Your task to perform on an android device: turn off location Image 0: 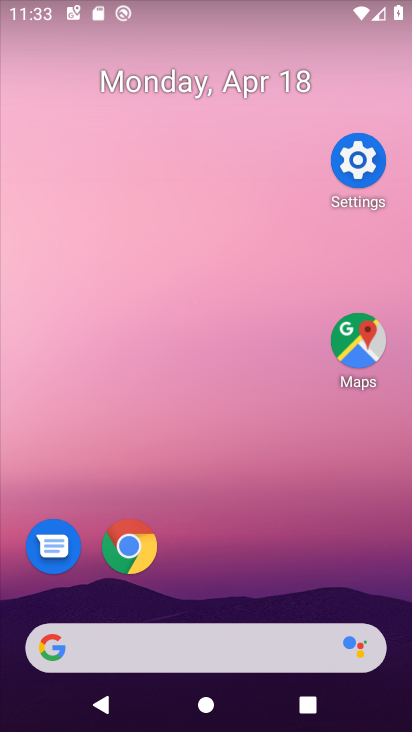
Step 0: drag from (255, 682) to (181, 120)
Your task to perform on an android device: turn off location Image 1: 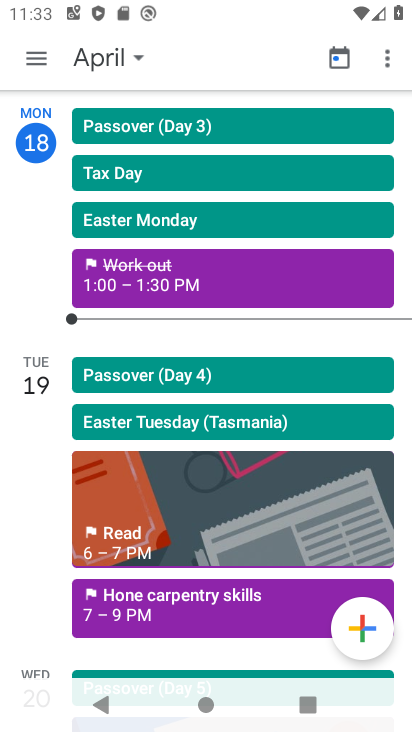
Step 1: press home button
Your task to perform on an android device: turn off location Image 2: 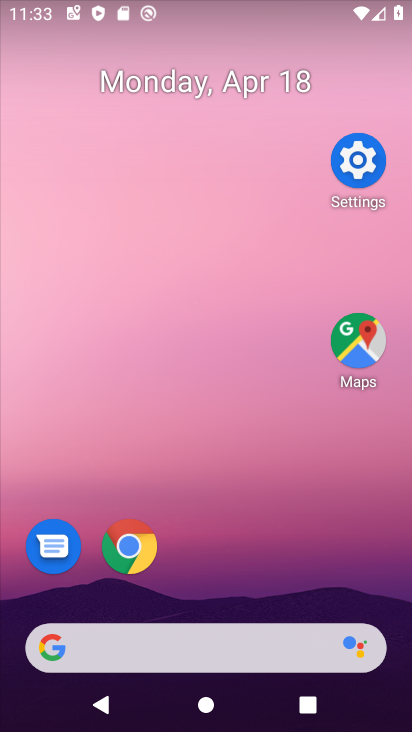
Step 2: drag from (248, 706) to (129, 63)
Your task to perform on an android device: turn off location Image 3: 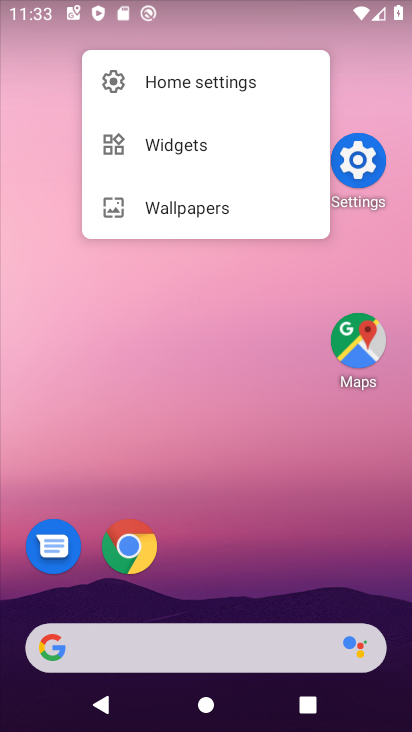
Step 3: drag from (239, 499) to (65, 286)
Your task to perform on an android device: turn off location Image 4: 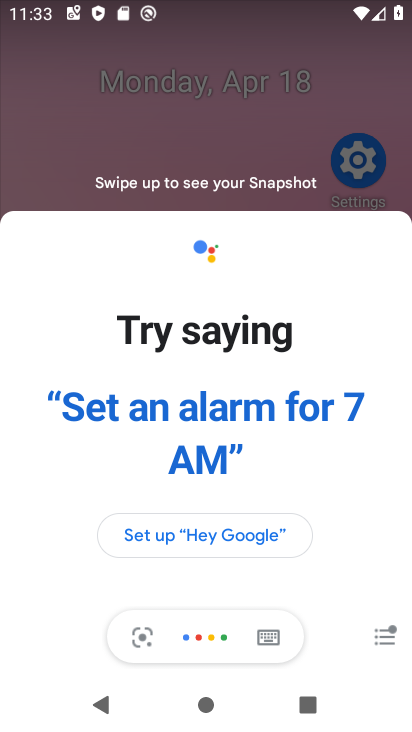
Step 4: press home button
Your task to perform on an android device: turn off location Image 5: 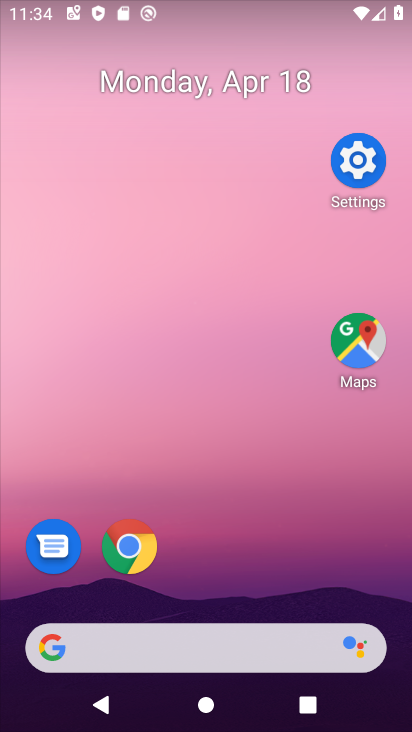
Step 5: drag from (270, 576) to (127, 239)
Your task to perform on an android device: turn off location Image 6: 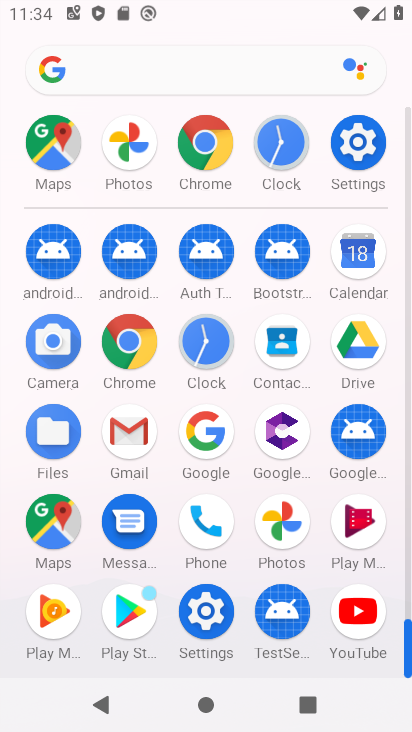
Step 6: click (356, 155)
Your task to perform on an android device: turn off location Image 7: 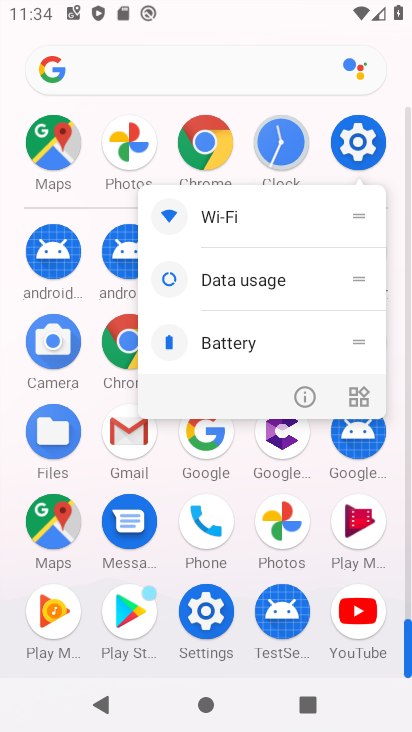
Step 7: click (356, 155)
Your task to perform on an android device: turn off location Image 8: 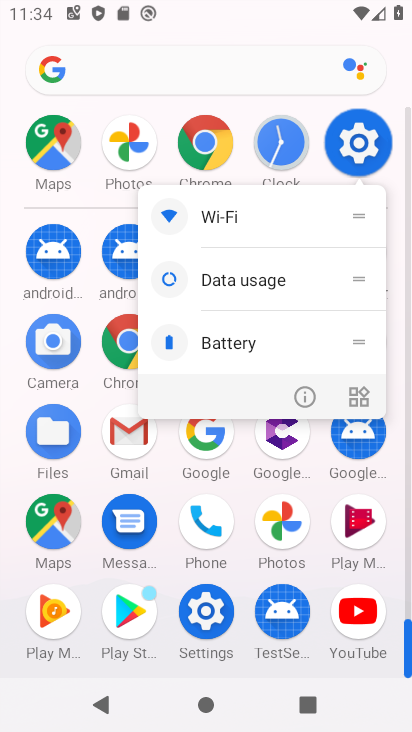
Step 8: click (357, 156)
Your task to perform on an android device: turn off location Image 9: 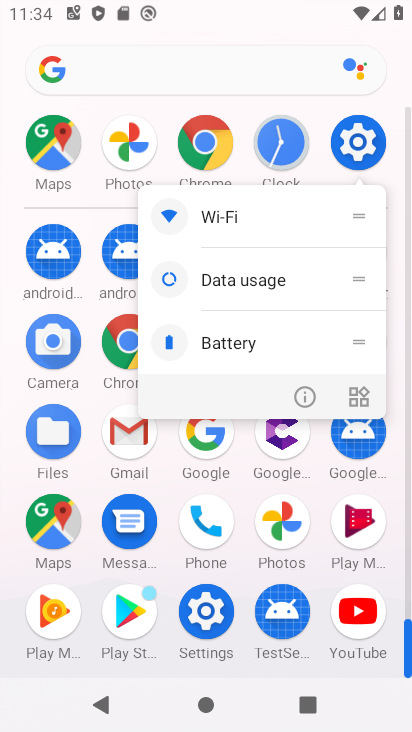
Step 9: click (348, 136)
Your task to perform on an android device: turn off location Image 10: 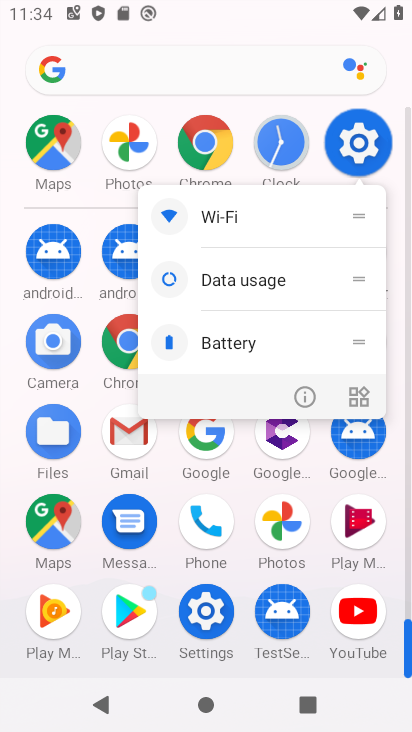
Step 10: click (349, 137)
Your task to perform on an android device: turn off location Image 11: 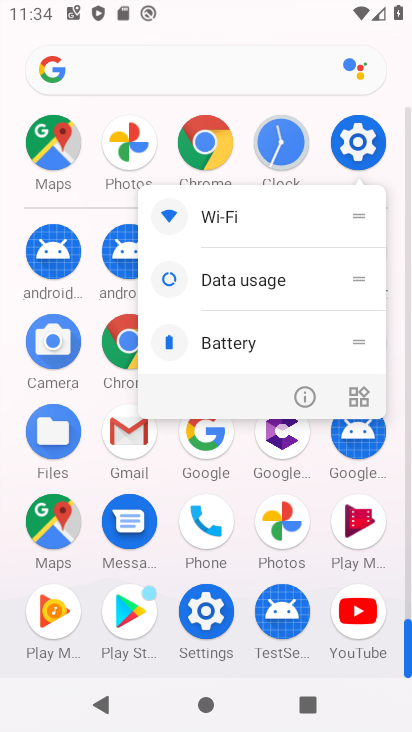
Step 11: click (349, 137)
Your task to perform on an android device: turn off location Image 12: 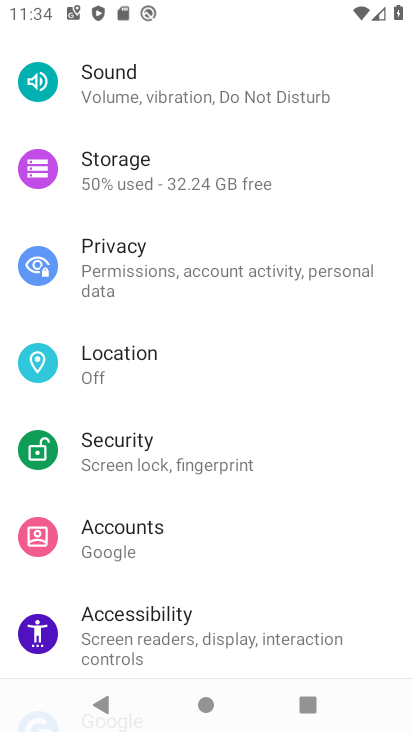
Step 12: click (109, 359)
Your task to perform on an android device: turn off location Image 13: 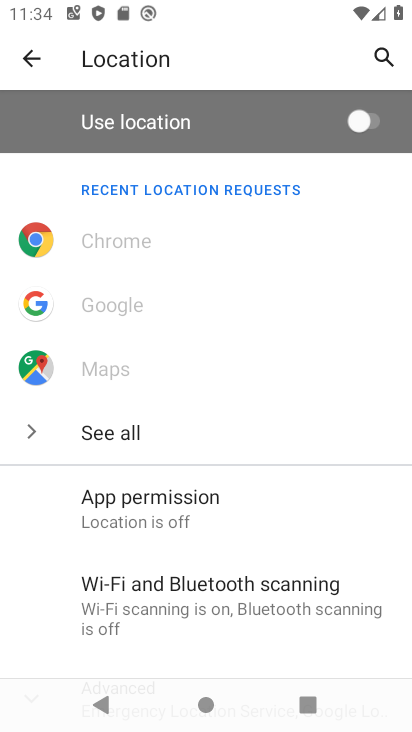
Step 13: press home button
Your task to perform on an android device: turn off location Image 14: 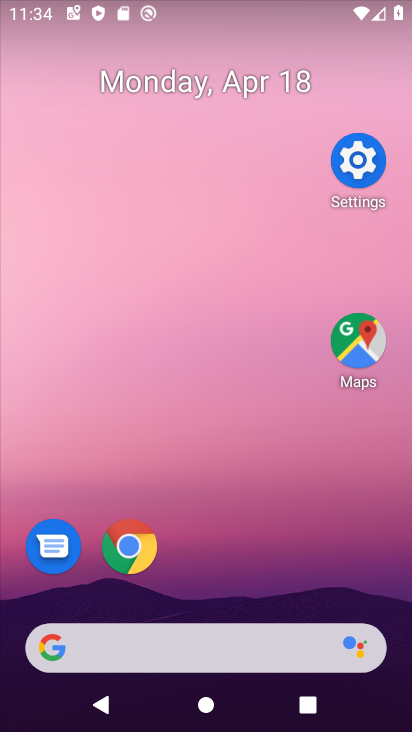
Step 14: drag from (336, 469) to (336, 563)
Your task to perform on an android device: turn off location Image 15: 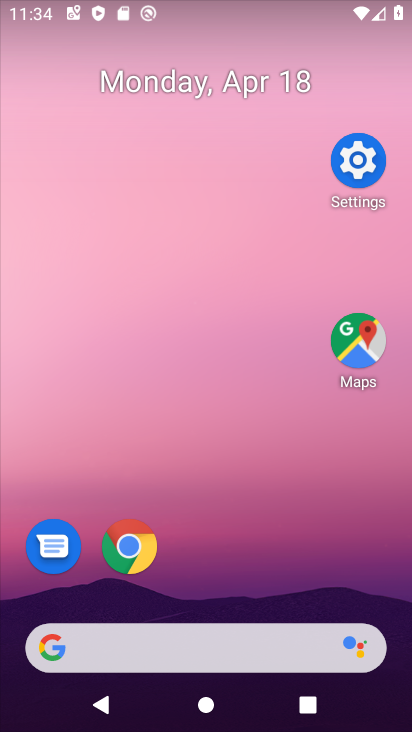
Step 15: drag from (251, 674) to (200, 203)
Your task to perform on an android device: turn off location Image 16: 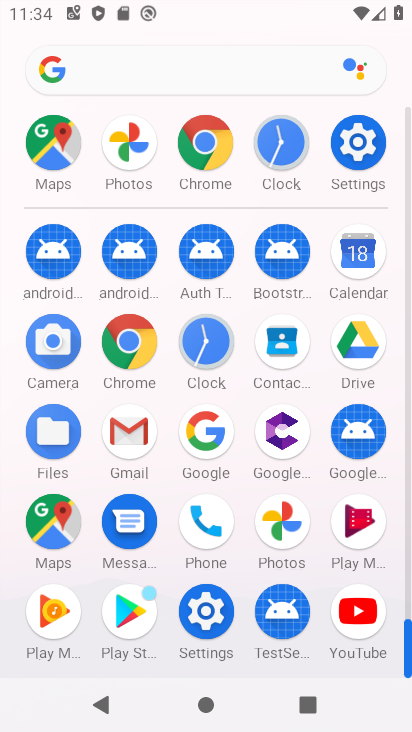
Step 16: click (348, 133)
Your task to perform on an android device: turn off location Image 17: 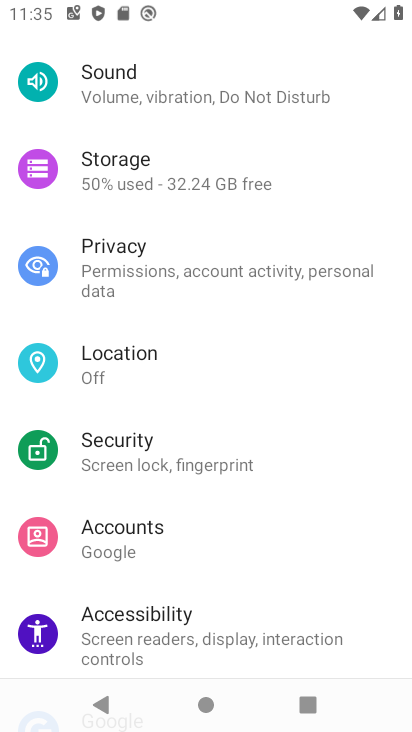
Step 17: click (110, 373)
Your task to perform on an android device: turn off location Image 18: 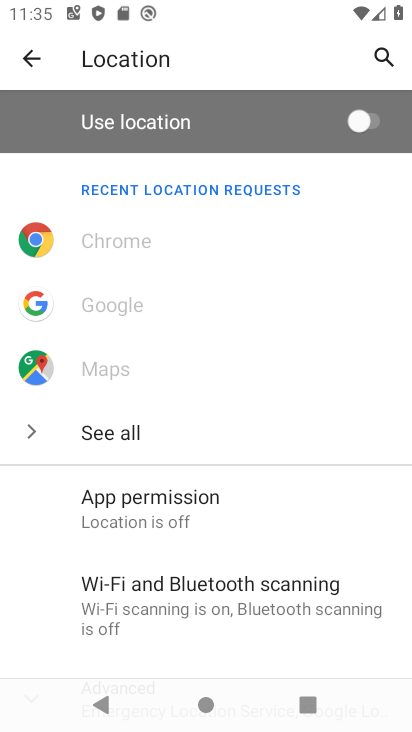
Step 18: task complete